Your task to perform on an android device: Open Google Chrome and click the shortcut for Amazon.com Image 0: 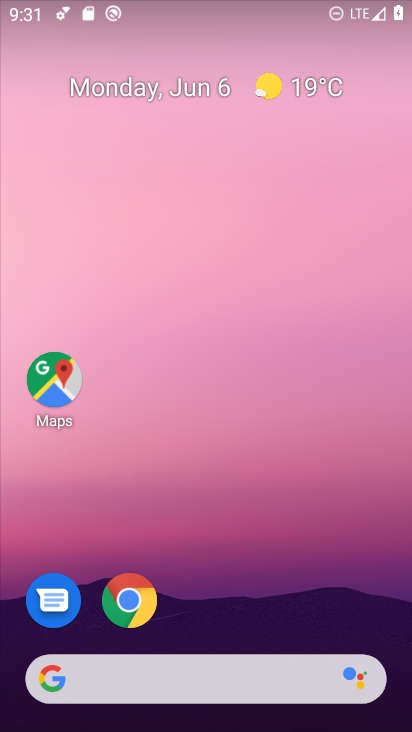
Step 0: click (138, 589)
Your task to perform on an android device: Open Google Chrome and click the shortcut for Amazon.com Image 1: 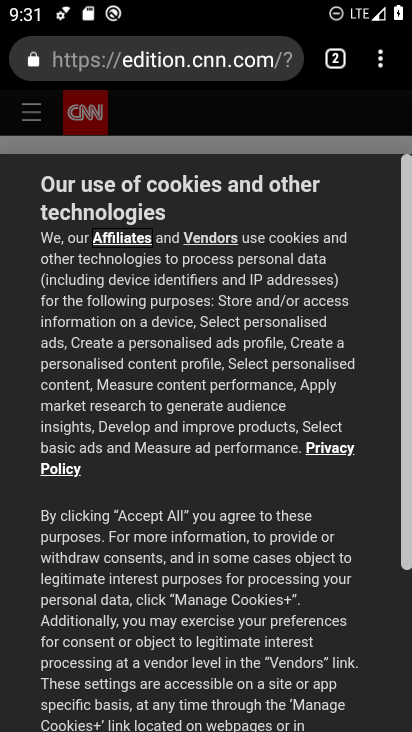
Step 1: click (334, 59)
Your task to perform on an android device: Open Google Chrome and click the shortcut for Amazon.com Image 2: 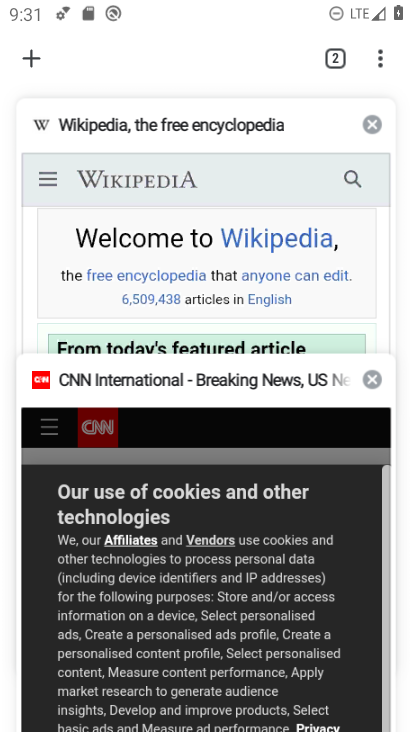
Step 2: click (30, 52)
Your task to perform on an android device: Open Google Chrome and click the shortcut for Amazon.com Image 3: 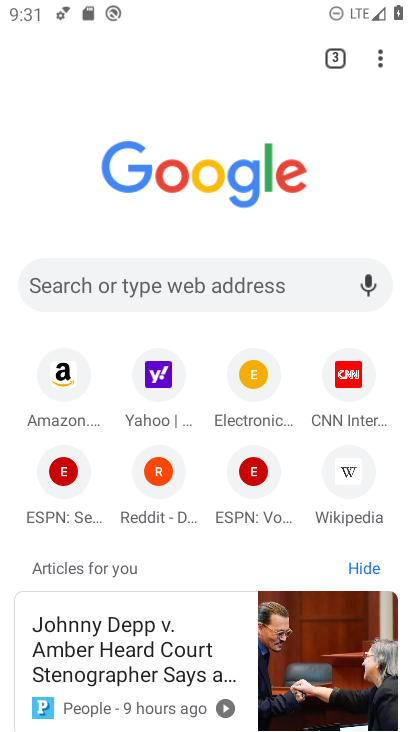
Step 3: click (70, 367)
Your task to perform on an android device: Open Google Chrome and click the shortcut for Amazon.com Image 4: 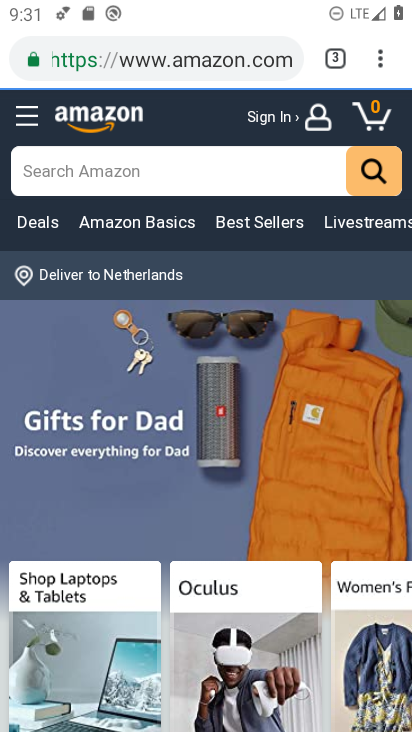
Step 4: task complete